Your task to perform on an android device: Search for a coffee table on IKEA Image 0: 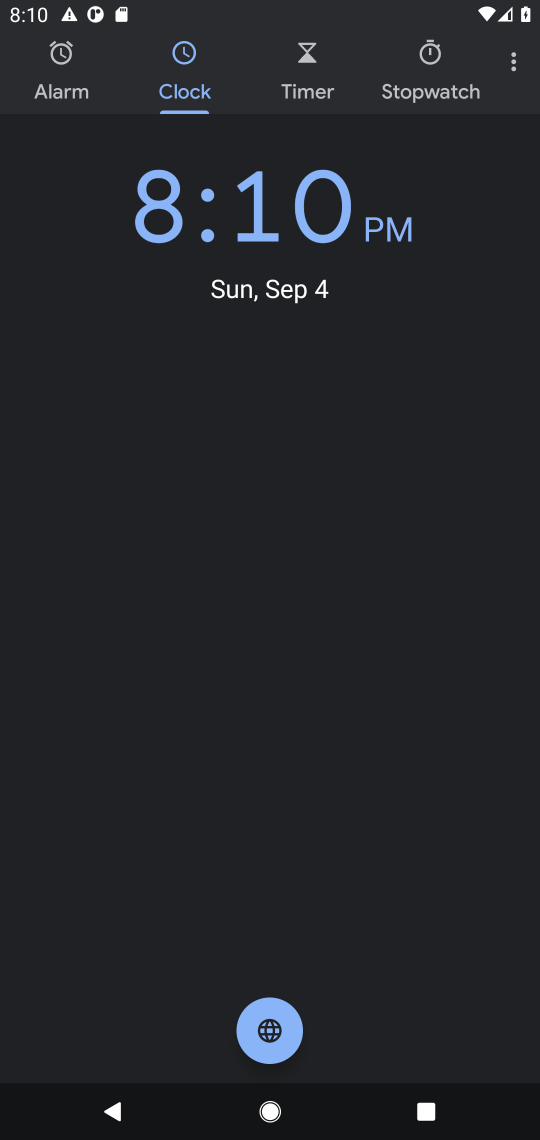
Step 0: task complete